Your task to perform on an android device: set the timer Image 0: 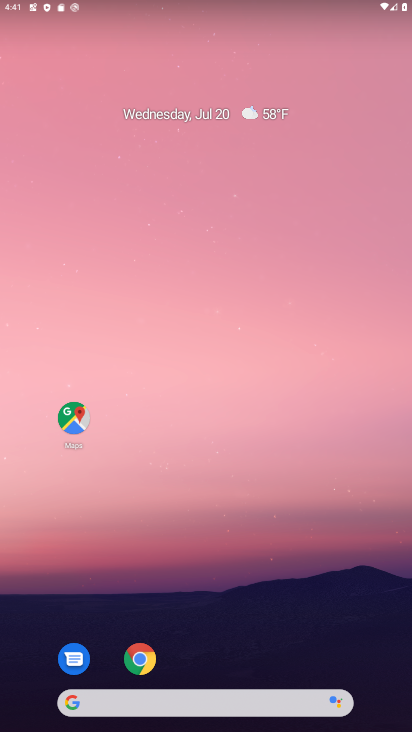
Step 0: drag from (263, 699) to (282, 0)
Your task to perform on an android device: set the timer Image 1: 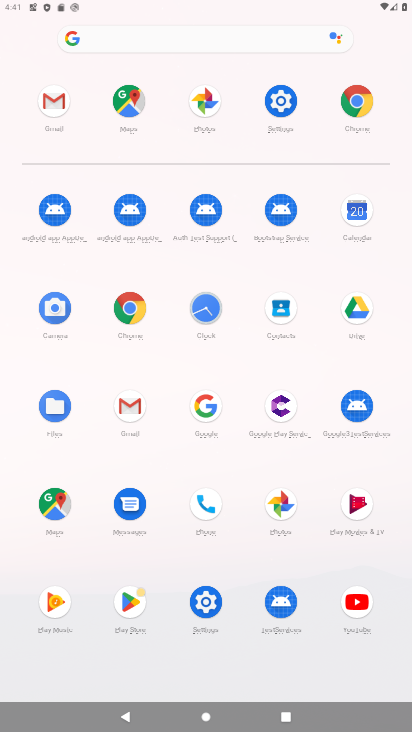
Step 1: click (280, 97)
Your task to perform on an android device: set the timer Image 2: 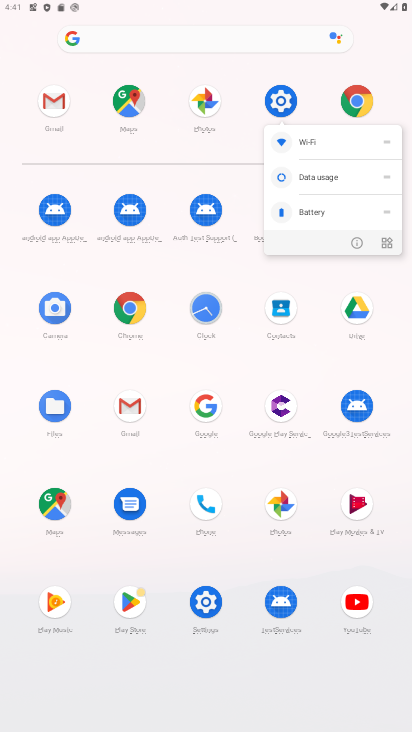
Step 2: click (204, 306)
Your task to perform on an android device: set the timer Image 3: 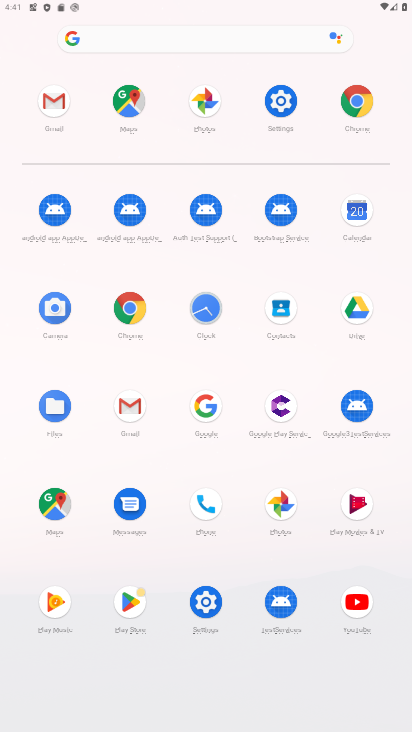
Step 3: click (204, 306)
Your task to perform on an android device: set the timer Image 4: 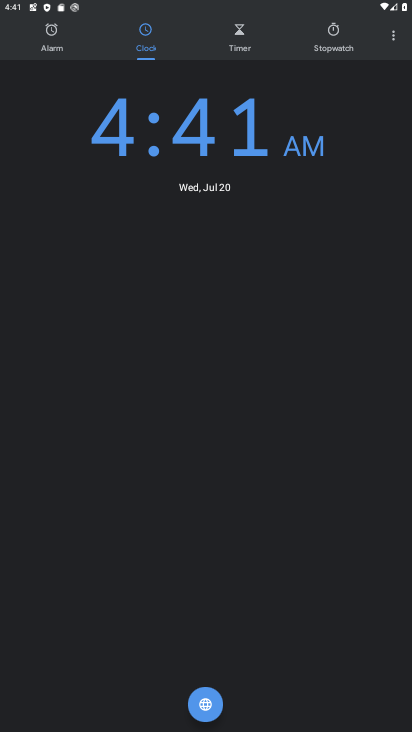
Step 4: click (230, 37)
Your task to perform on an android device: set the timer Image 5: 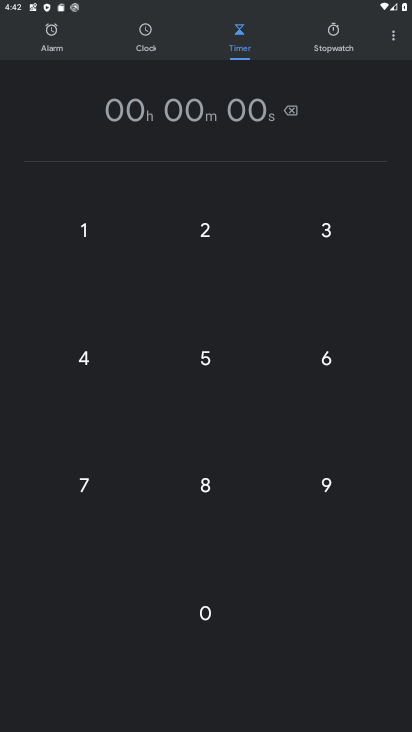
Step 5: click (318, 482)
Your task to perform on an android device: set the timer Image 6: 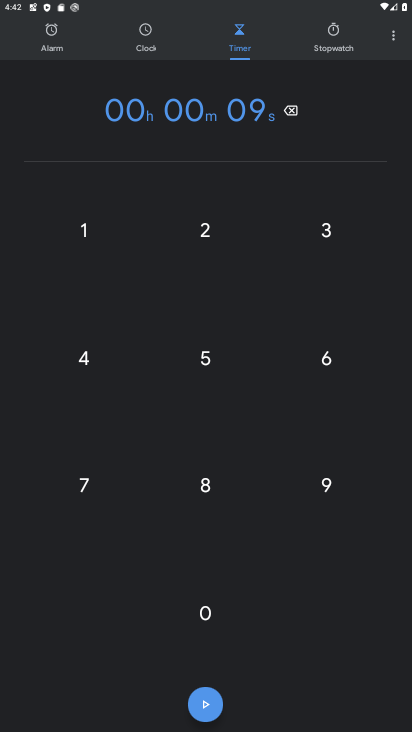
Step 6: click (318, 482)
Your task to perform on an android device: set the timer Image 7: 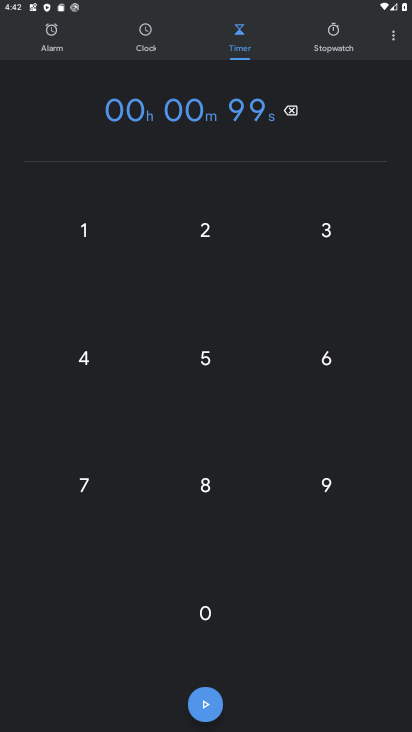
Step 7: click (331, 474)
Your task to perform on an android device: set the timer Image 8: 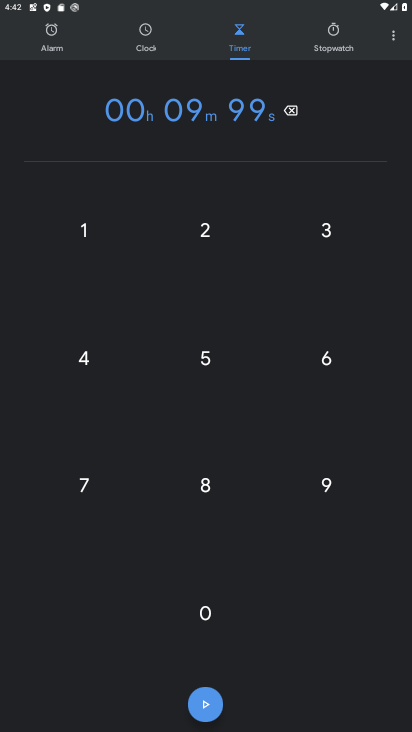
Step 8: click (327, 480)
Your task to perform on an android device: set the timer Image 9: 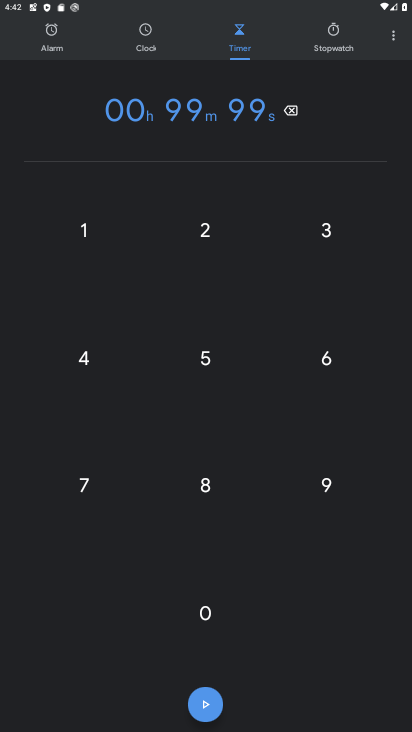
Step 9: click (327, 480)
Your task to perform on an android device: set the timer Image 10: 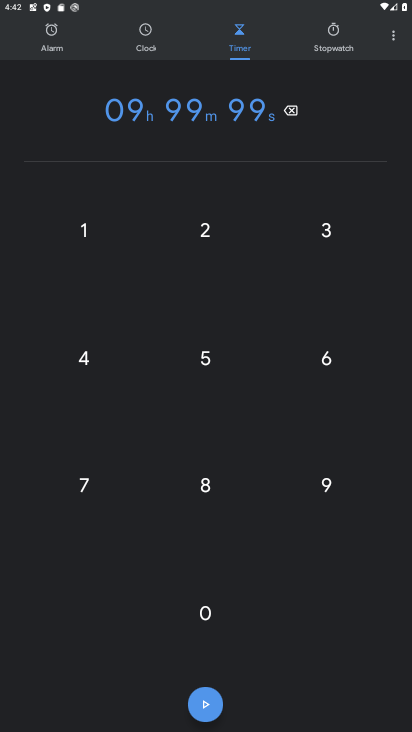
Step 10: click (327, 480)
Your task to perform on an android device: set the timer Image 11: 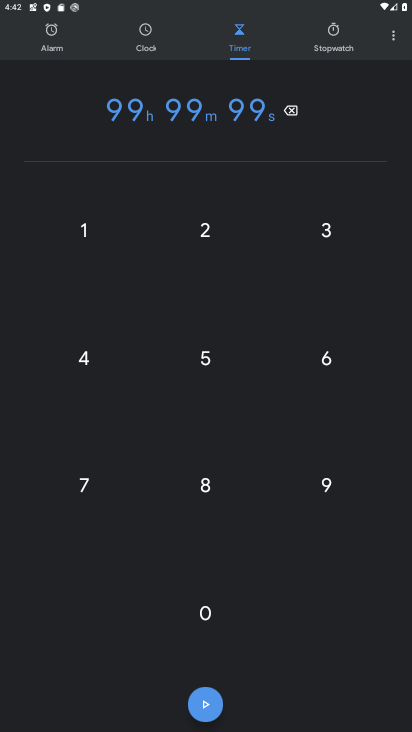
Step 11: click (196, 708)
Your task to perform on an android device: set the timer Image 12: 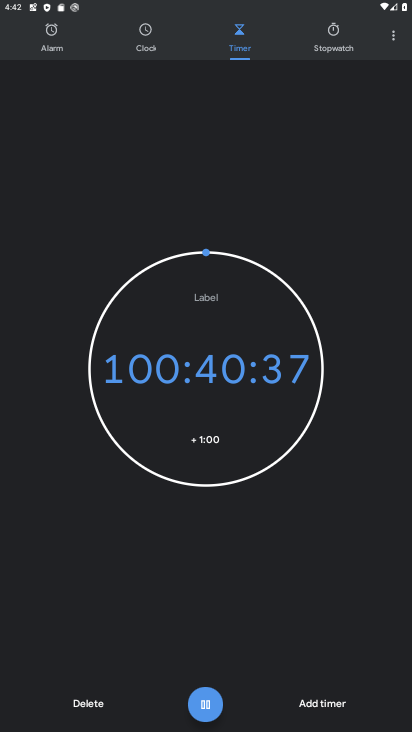
Step 12: task complete